Your task to perform on an android device: Is it going to rain today? Image 0: 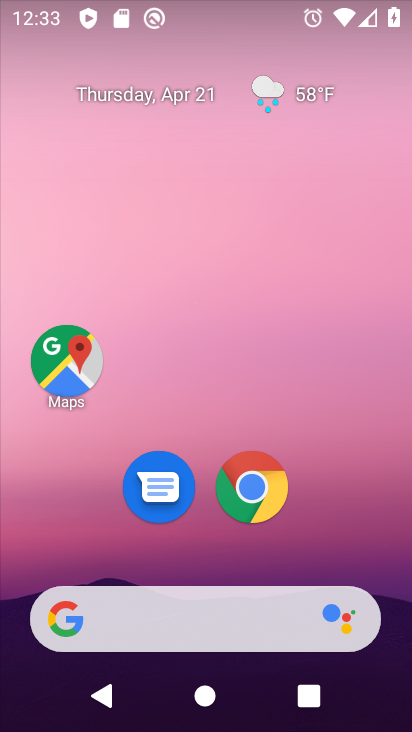
Step 0: drag from (389, 546) to (381, 0)
Your task to perform on an android device: Is it going to rain today? Image 1: 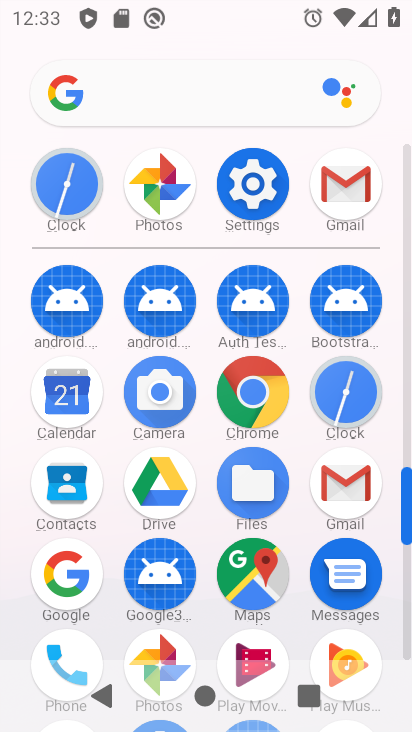
Step 1: drag from (375, 46) to (357, 596)
Your task to perform on an android device: Is it going to rain today? Image 2: 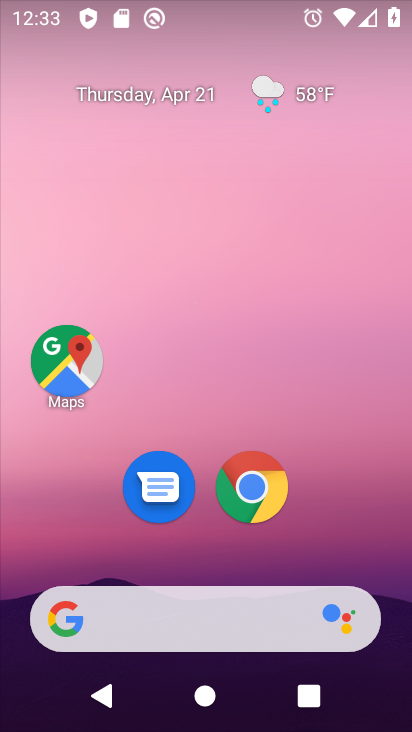
Step 2: click (313, 84)
Your task to perform on an android device: Is it going to rain today? Image 3: 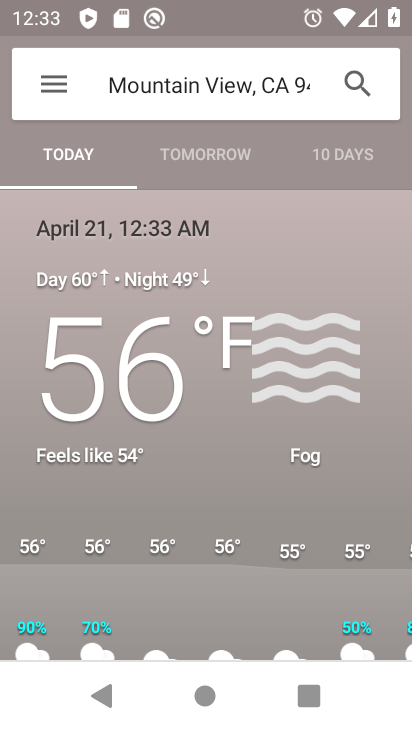
Step 3: task complete